Your task to perform on an android device: Search for Mexican restaurants on Maps Image 0: 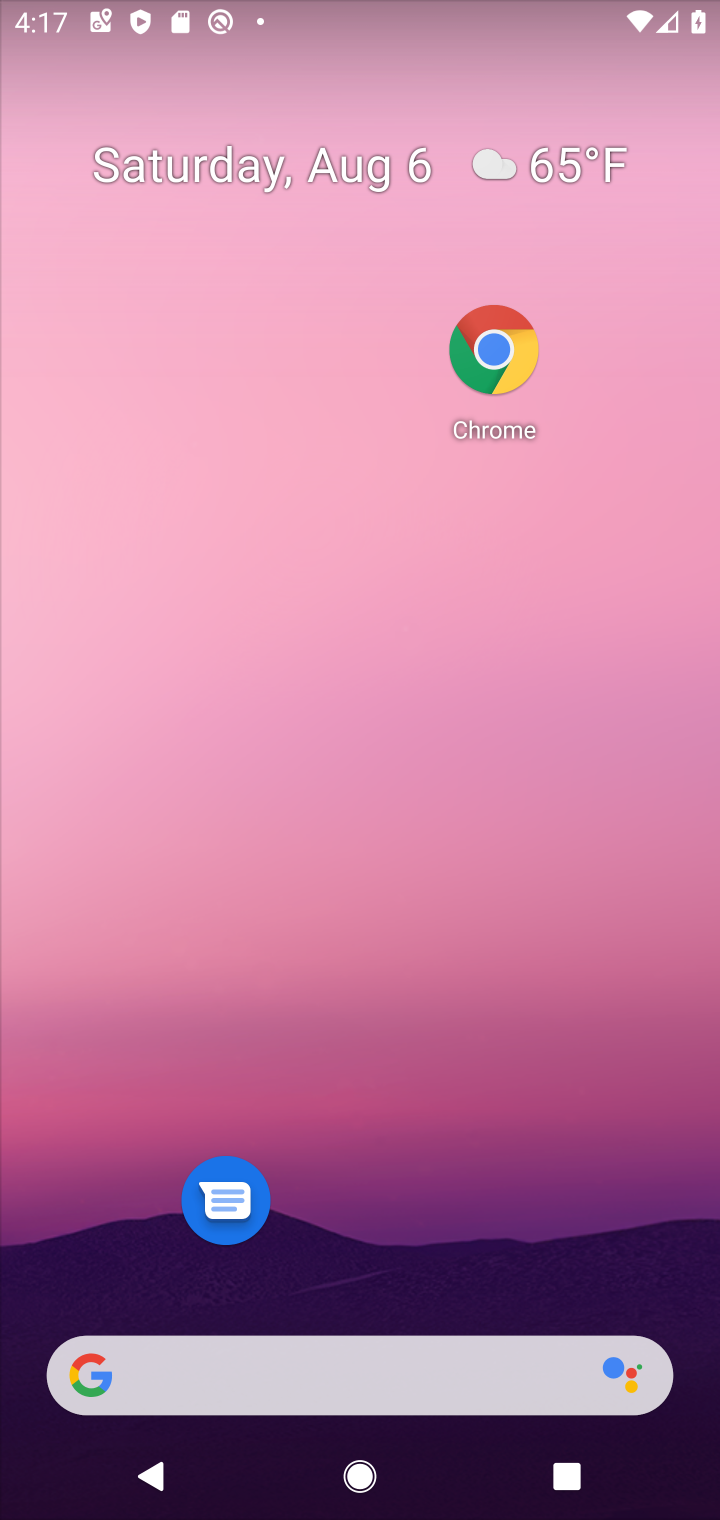
Step 0: drag from (299, 1334) to (304, 277)
Your task to perform on an android device: Search for Mexican restaurants on Maps Image 1: 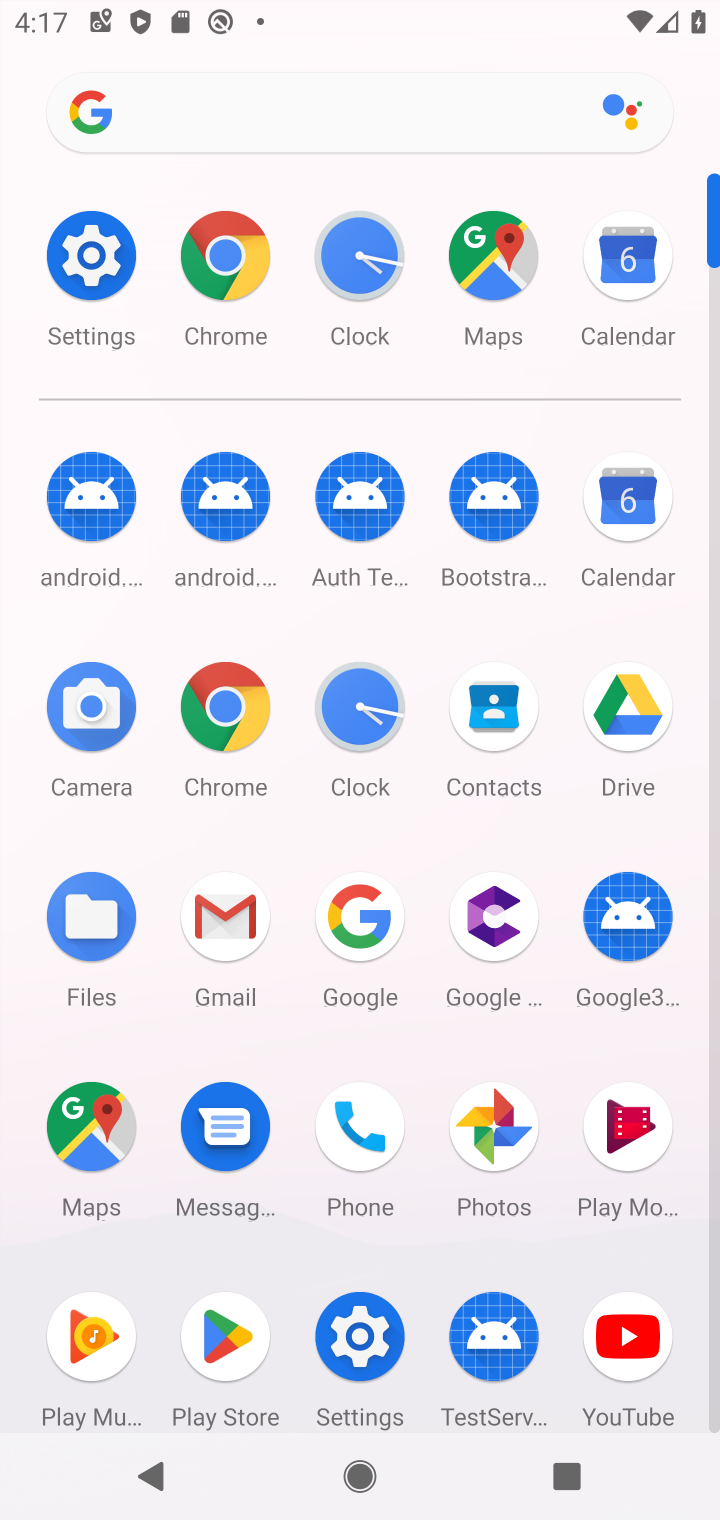
Step 1: click (476, 296)
Your task to perform on an android device: Search for Mexican restaurants on Maps Image 2: 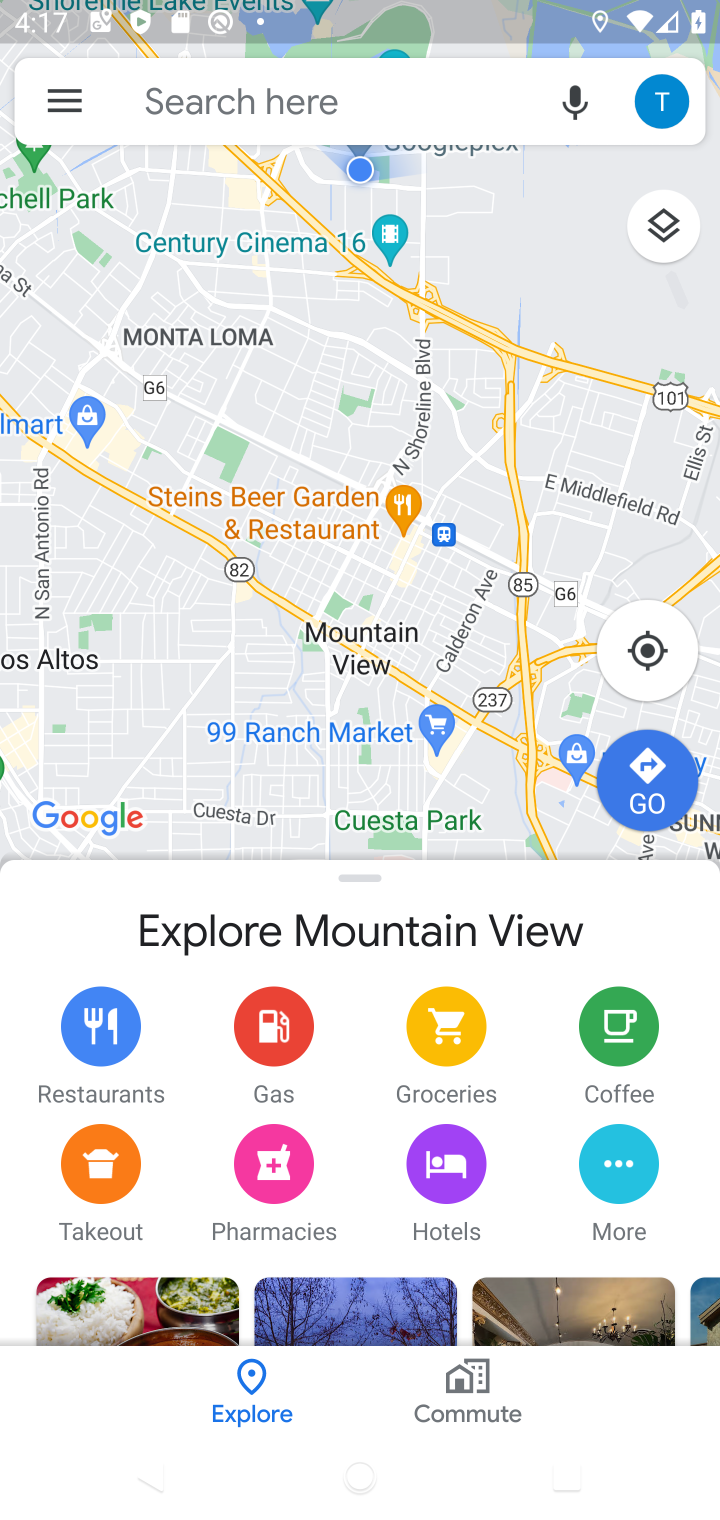
Step 2: click (286, 104)
Your task to perform on an android device: Search for Mexican restaurants on Maps Image 3: 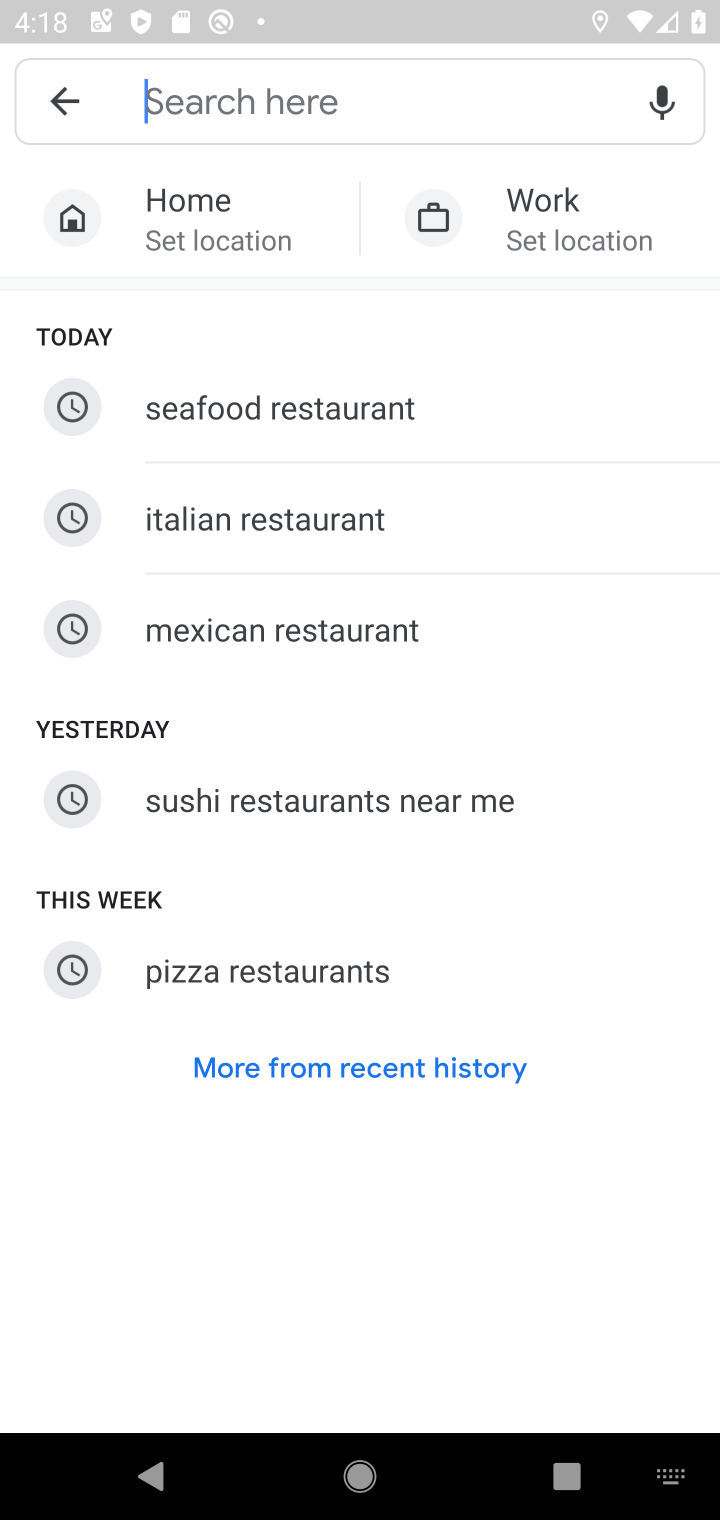
Step 3: click (328, 639)
Your task to perform on an android device: Search for Mexican restaurants on Maps Image 4: 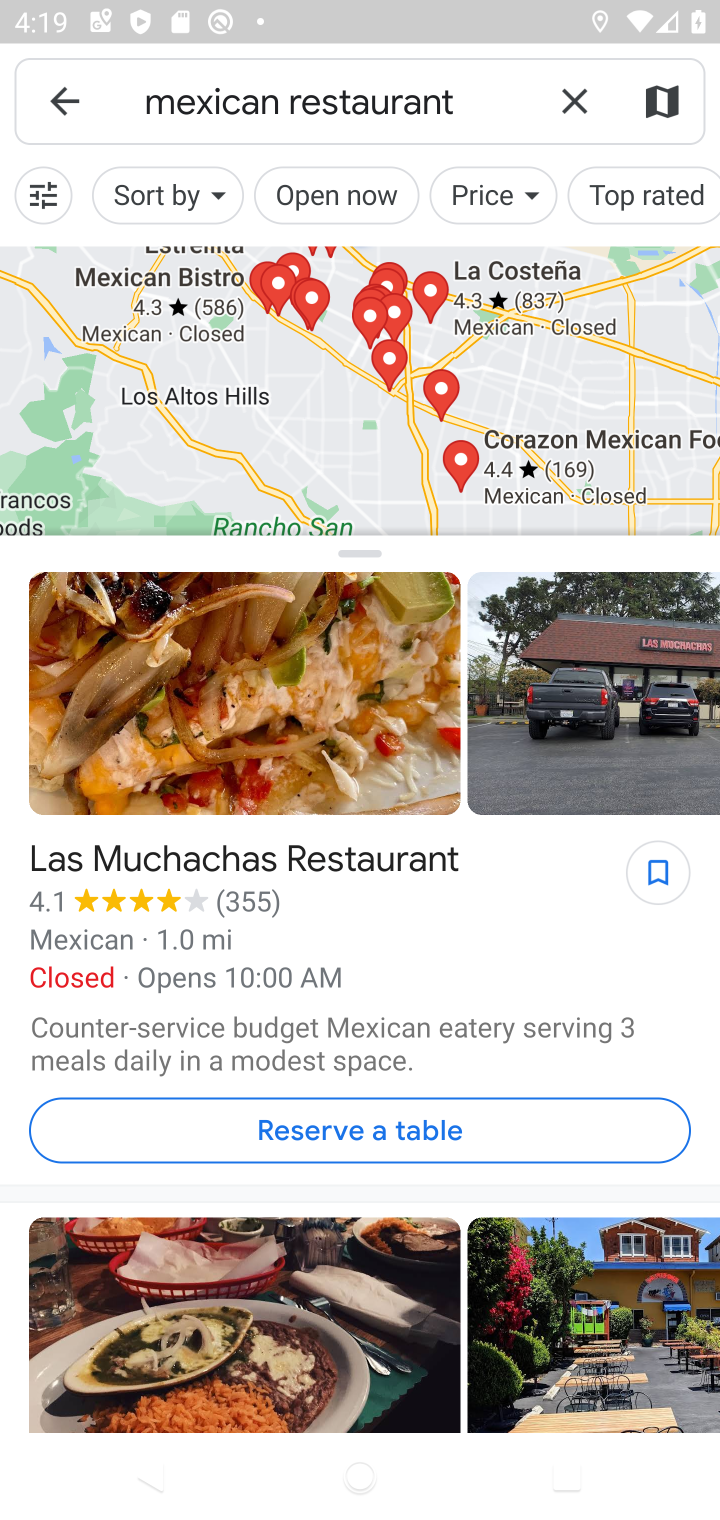
Step 4: task complete